Your task to perform on an android device: Open Google Image 0: 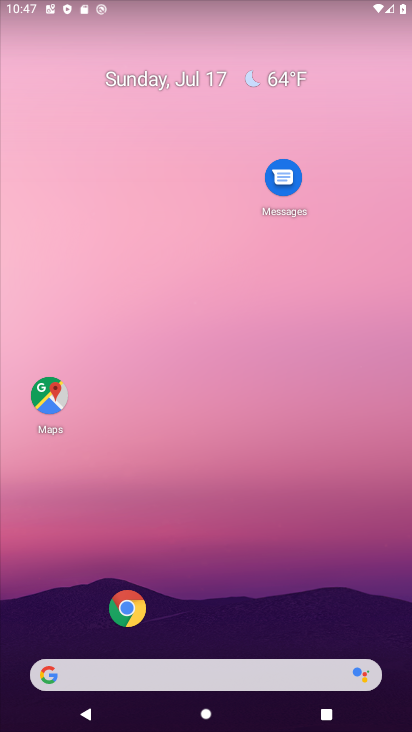
Step 0: click (124, 601)
Your task to perform on an android device: Open Google Image 1: 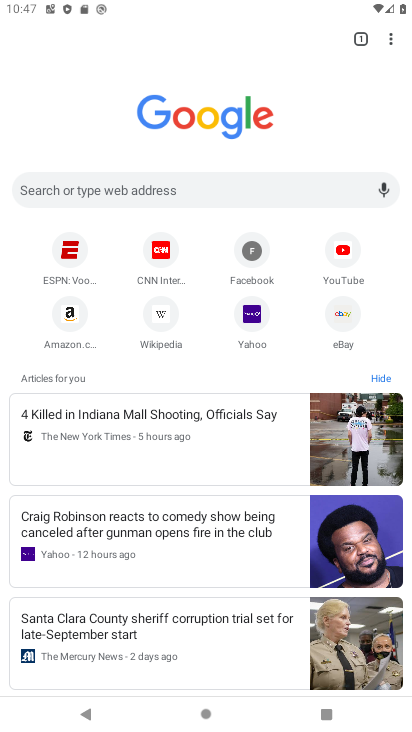
Step 1: task complete